Your task to perform on an android device: set default search engine in the chrome app Image 0: 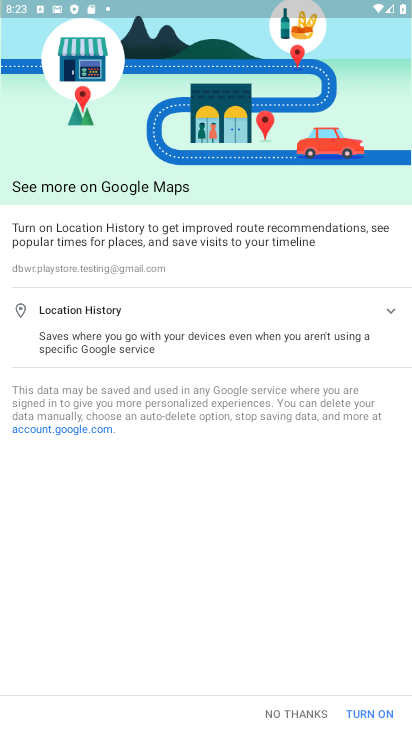
Step 0: press home button
Your task to perform on an android device: set default search engine in the chrome app Image 1: 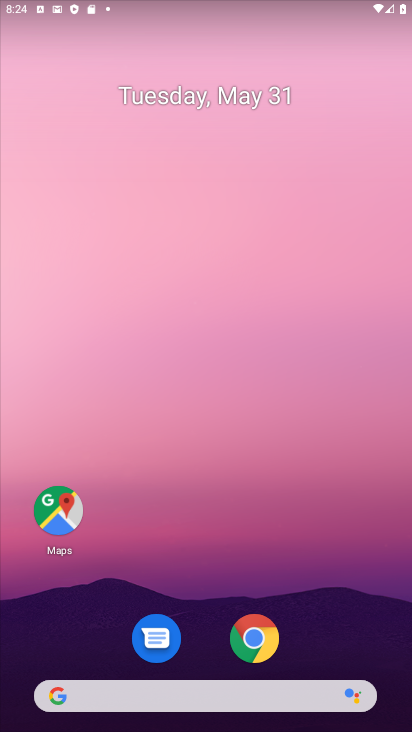
Step 1: click (260, 638)
Your task to perform on an android device: set default search engine in the chrome app Image 2: 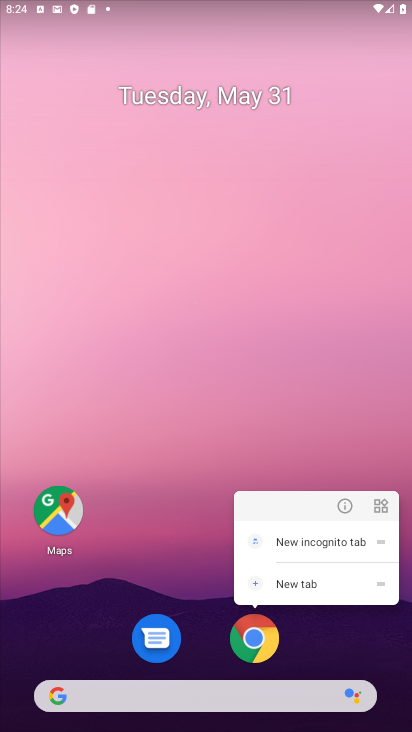
Step 2: click (266, 642)
Your task to perform on an android device: set default search engine in the chrome app Image 3: 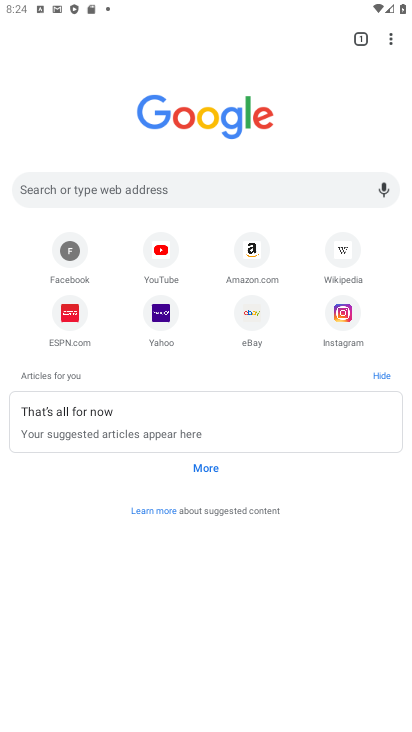
Step 3: click (383, 40)
Your task to perform on an android device: set default search engine in the chrome app Image 4: 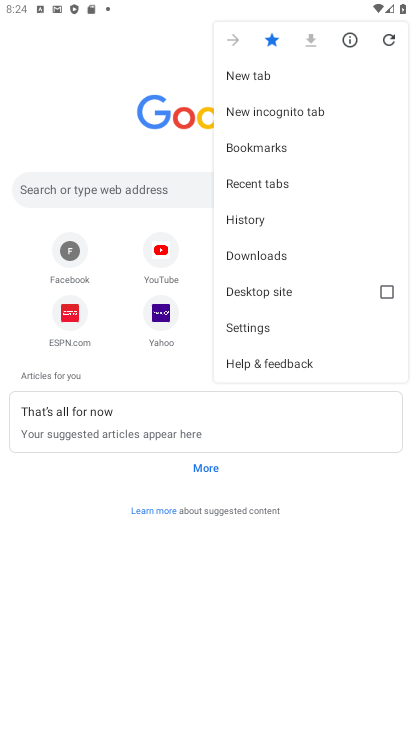
Step 4: click (302, 323)
Your task to perform on an android device: set default search engine in the chrome app Image 5: 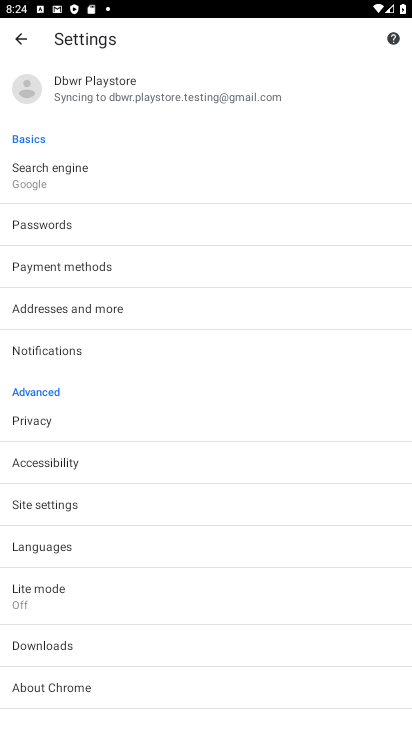
Step 5: click (112, 179)
Your task to perform on an android device: set default search engine in the chrome app Image 6: 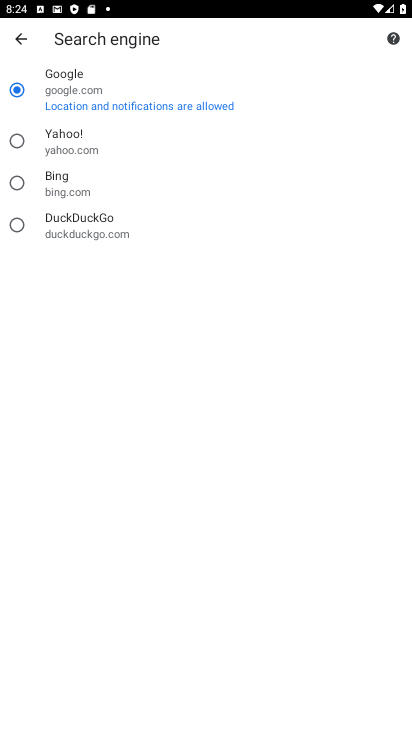
Step 6: task complete